Your task to perform on an android device: toggle airplane mode Image 0: 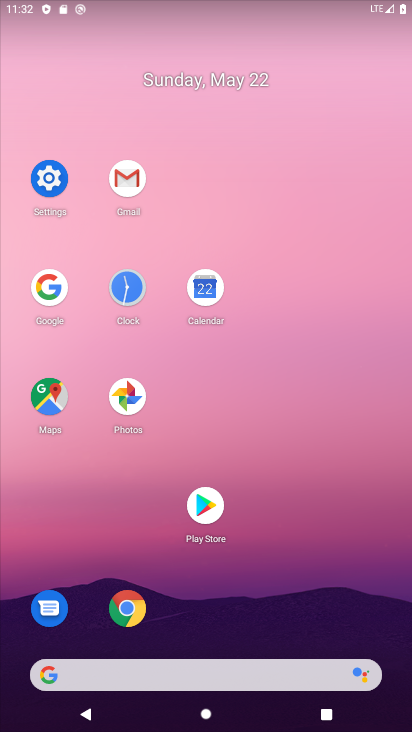
Step 0: click (50, 182)
Your task to perform on an android device: toggle airplane mode Image 1: 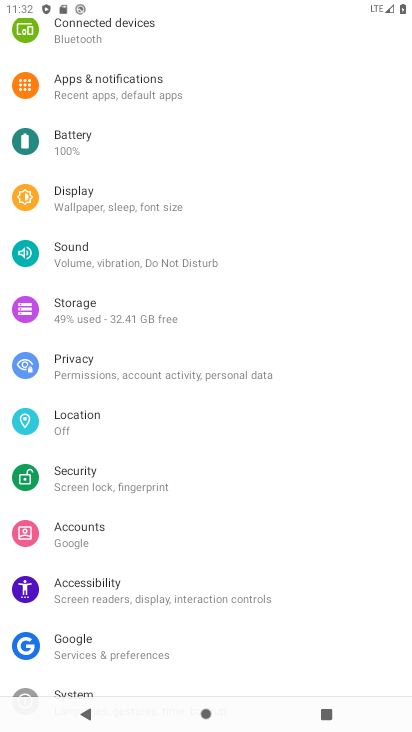
Step 1: drag from (211, 92) to (238, 445)
Your task to perform on an android device: toggle airplane mode Image 2: 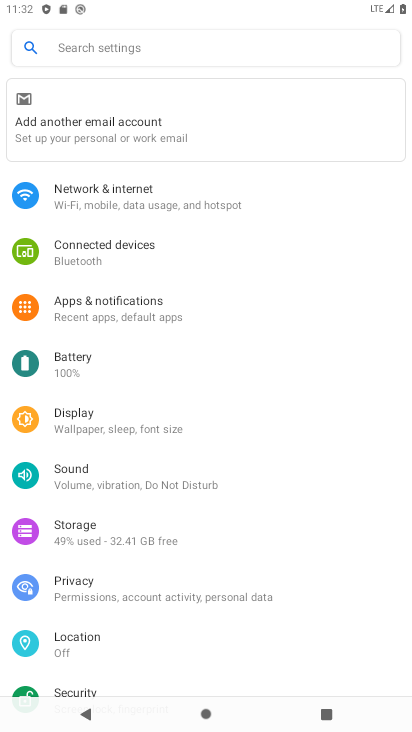
Step 2: click (224, 204)
Your task to perform on an android device: toggle airplane mode Image 3: 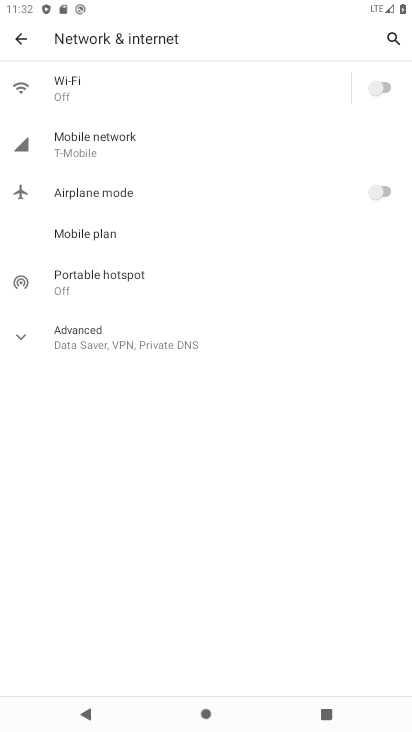
Step 3: click (392, 187)
Your task to perform on an android device: toggle airplane mode Image 4: 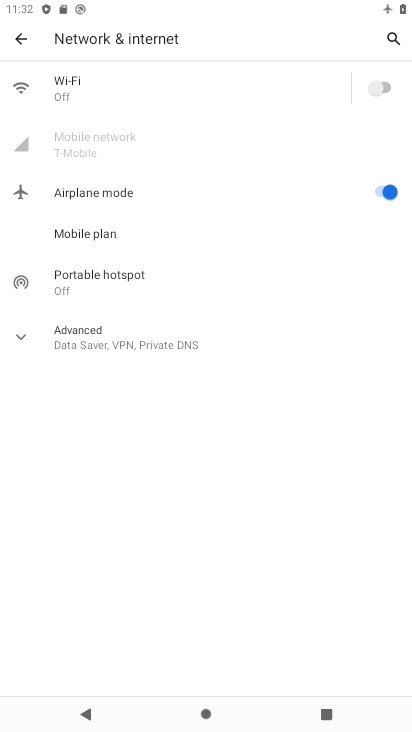
Step 4: task complete